Your task to perform on an android device: show emergency info Image 0: 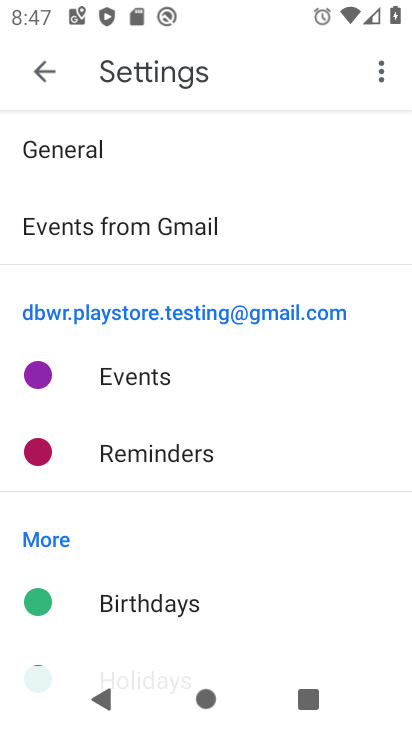
Step 0: press home button
Your task to perform on an android device: show emergency info Image 1: 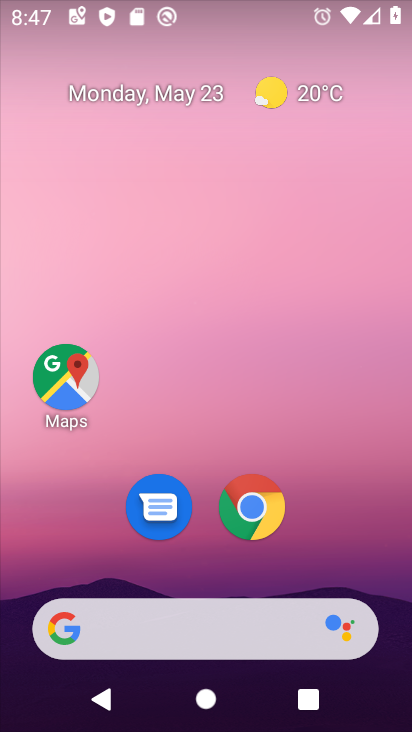
Step 1: drag from (359, 578) to (306, 1)
Your task to perform on an android device: show emergency info Image 2: 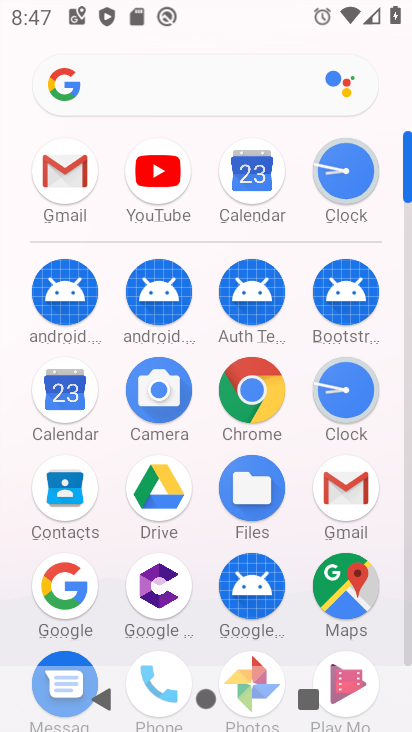
Step 2: click (406, 528)
Your task to perform on an android device: show emergency info Image 3: 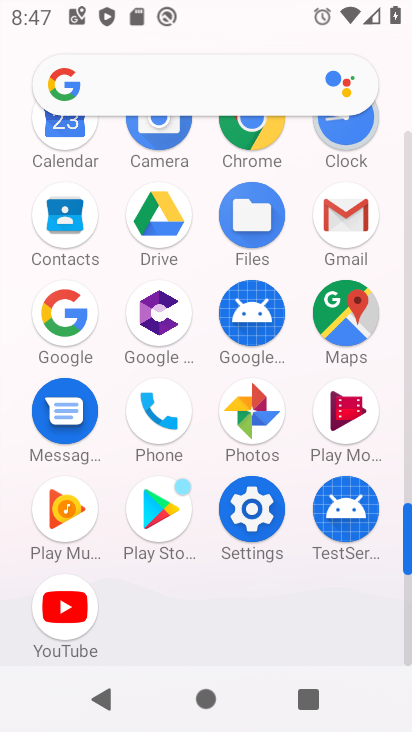
Step 3: click (249, 516)
Your task to perform on an android device: show emergency info Image 4: 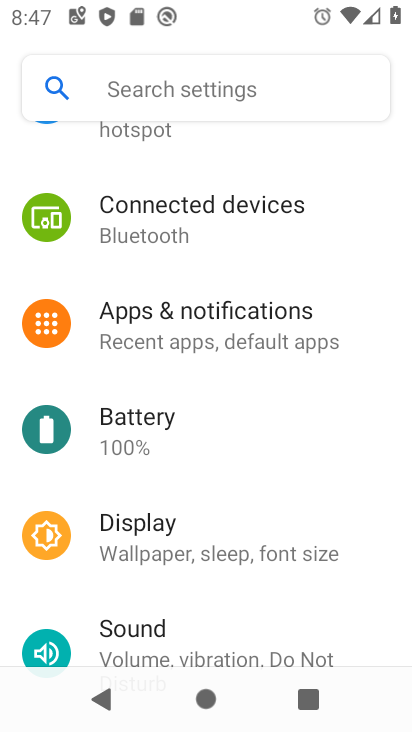
Step 4: drag from (356, 639) to (339, 6)
Your task to perform on an android device: show emergency info Image 5: 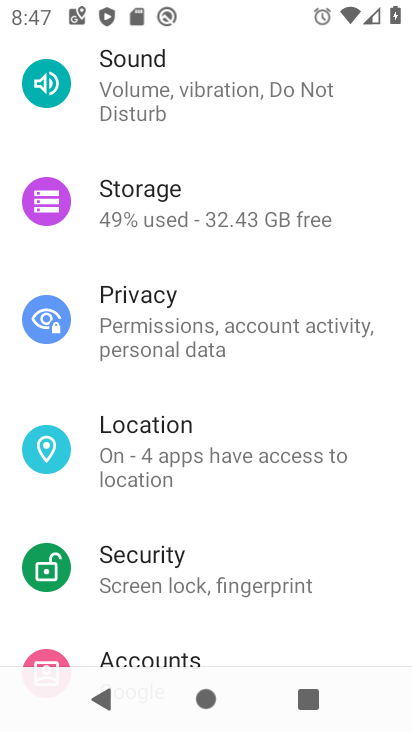
Step 5: drag from (258, 506) to (251, 84)
Your task to perform on an android device: show emergency info Image 6: 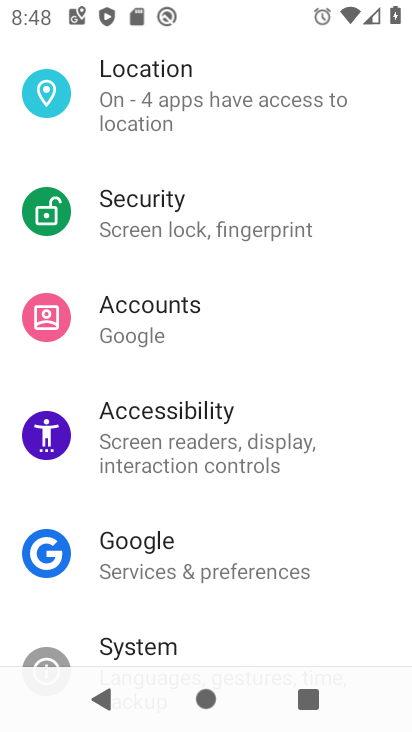
Step 6: drag from (350, 572) to (328, 55)
Your task to perform on an android device: show emergency info Image 7: 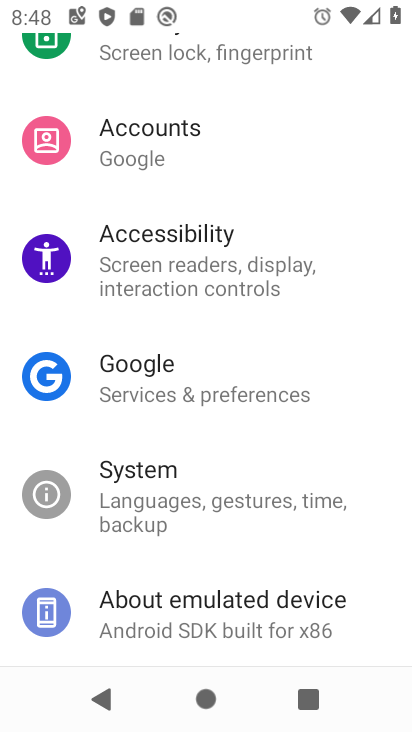
Step 7: click (214, 609)
Your task to perform on an android device: show emergency info Image 8: 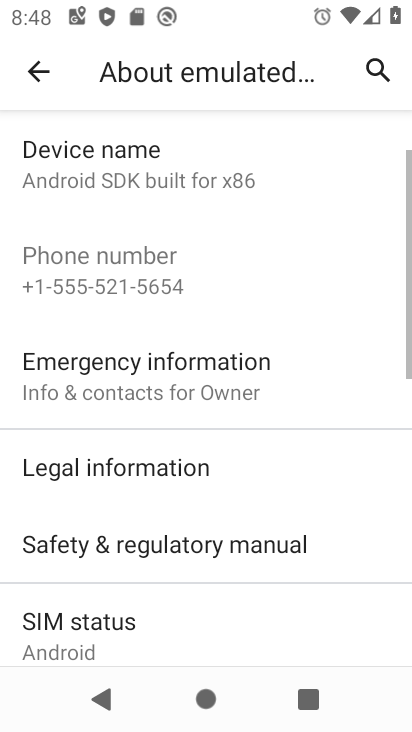
Step 8: click (114, 388)
Your task to perform on an android device: show emergency info Image 9: 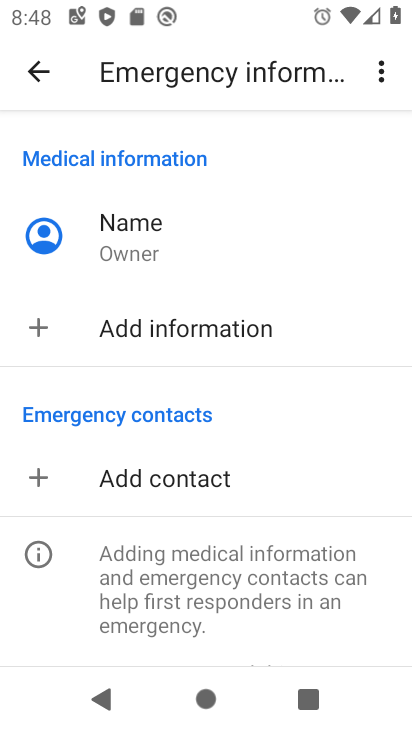
Step 9: task complete